Your task to perform on an android device: Go to battery settings Image 0: 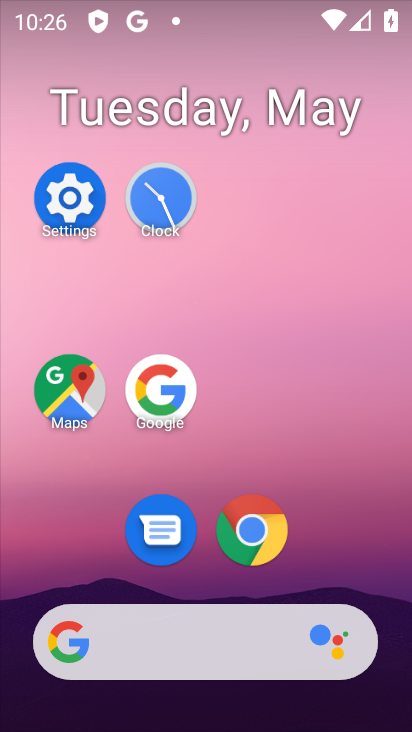
Step 0: click (62, 213)
Your task to perform on an android device: Go to battery settings Image 1: 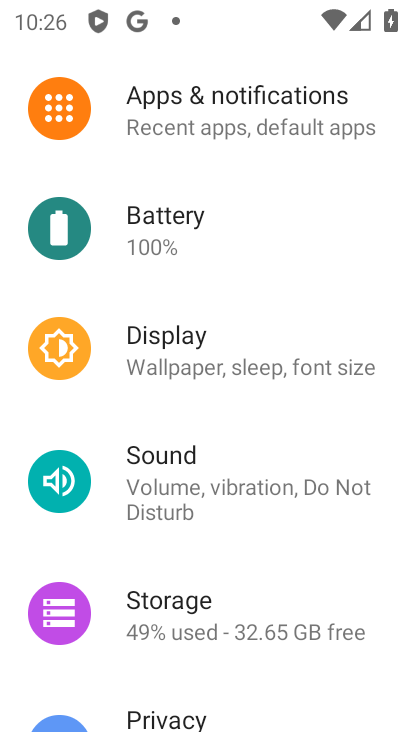
Step 1: drag from (262, 553) to (276, 214)
Your task to perform on an android device: Go to battery settings Image 2: 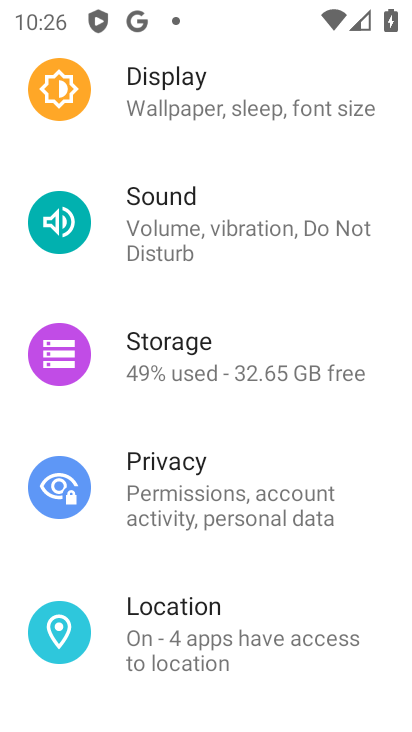
Step 2: drag from (259, 161) to (250, 465)
Your task to perform on an android device: Go to battery settings Image 3: 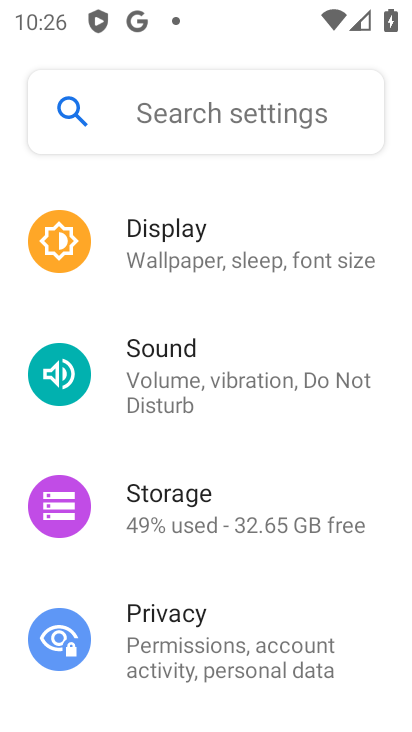
Step 3: drag from (272, 199) to (275, 508)
Your task to perform on an android device: Go to battery settings Image 4: 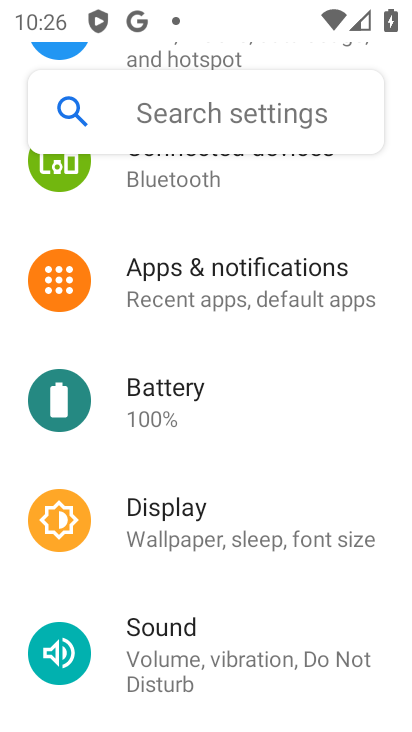
Step 4: click (239, 410)
Your task to perform on an android device: Go to battery settings Image 5: 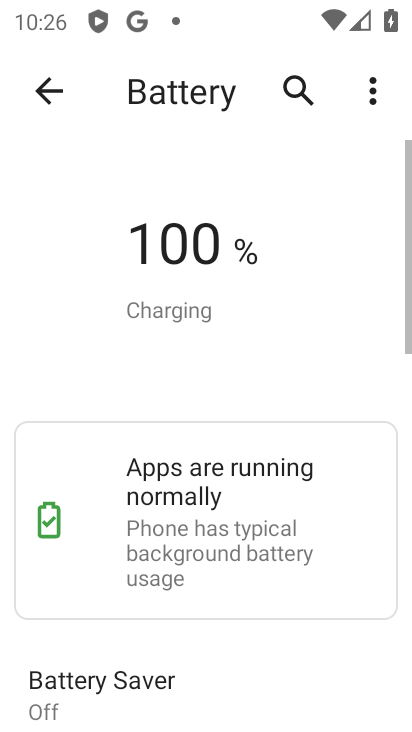
Step 5: task complete